Your task to perform on an android device: turn notification dots off Image 0: 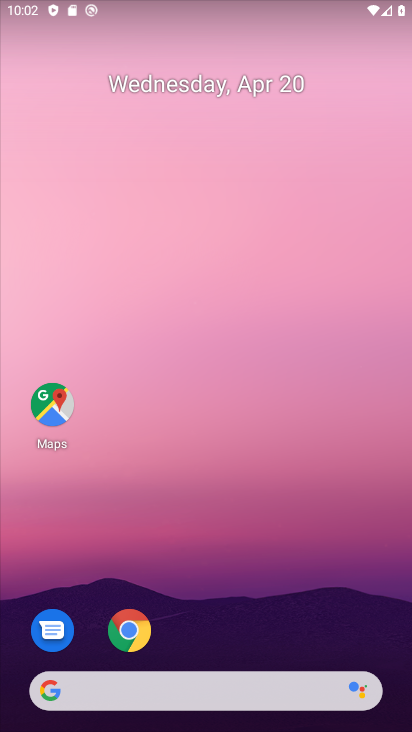
Step 0: drag from (268, 535) to (278, 11)
Your task to perform on an android device: turn notification dots off Image 1: 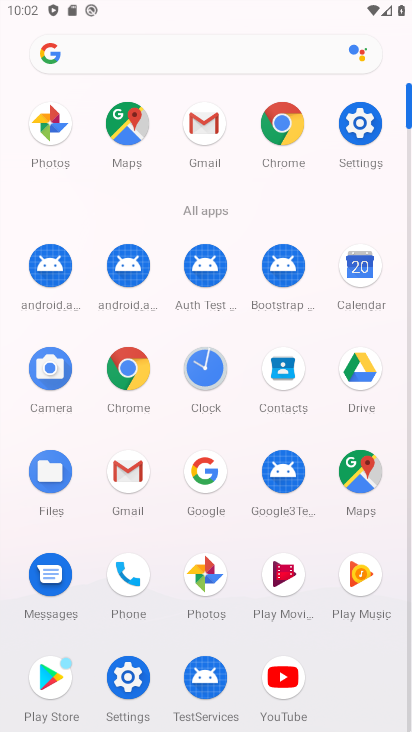
Step 1: click (363, 134)
Your task to perform on an android device: turn notification dots off Image 2: 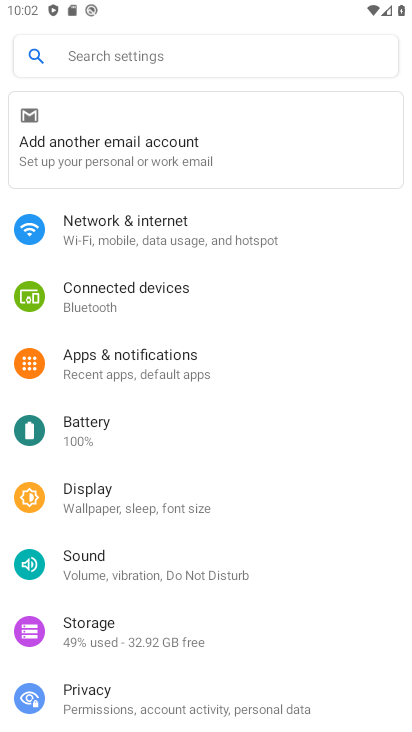
Step 2: click (152, 366)
Your task to perform on an android device: turn notification dots off Image 3: 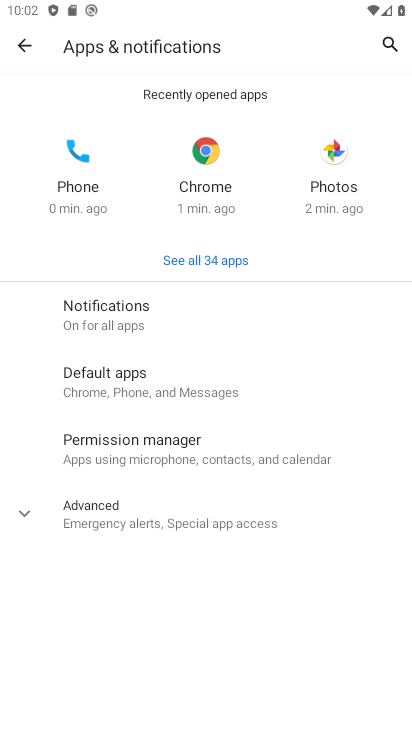
Step 3: click (104, 322)
Your task to perform on an android device: turn notification dots off Image 4: 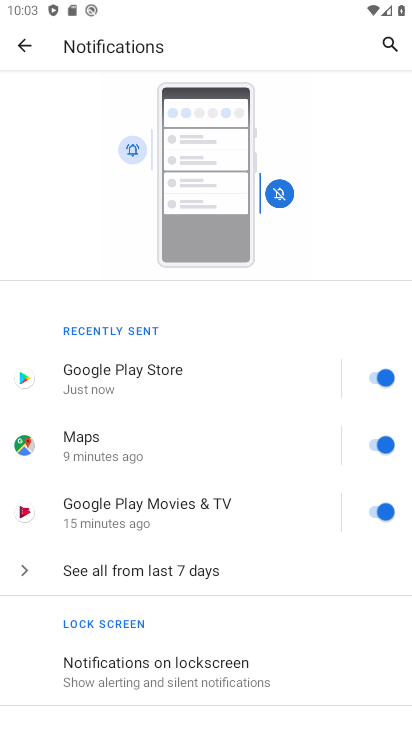
Step 4: drag from (179, 637) to (191, 254)
Your task to perform on an android device: turn notification dots off Image 5: 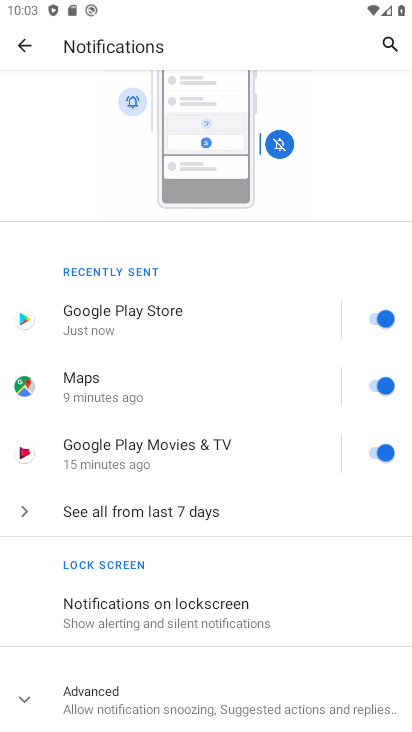
Step 5: drag from (171, 629) to (241, 267)
Your task to perform on an android device: turn notification dots off Image 6: 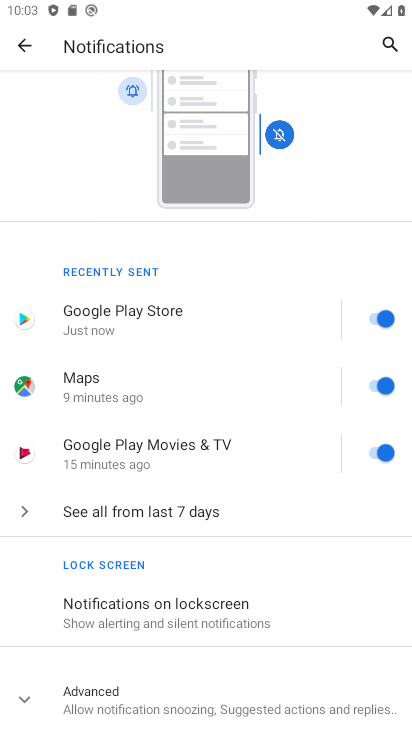
Step 6: click (107, 701)
Your task to perform on an android device: turn notification dots off Image 7: 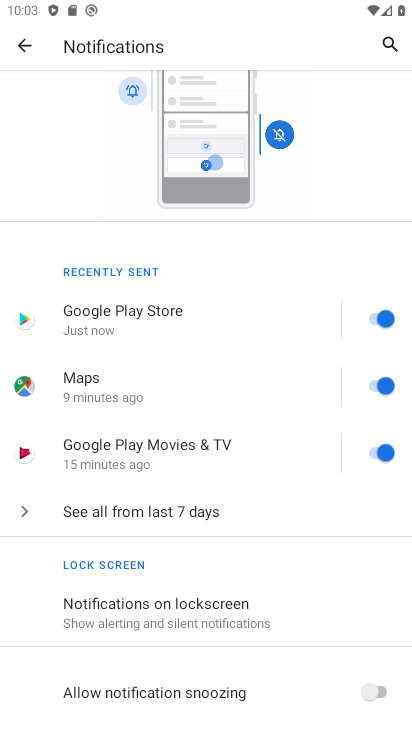
Step 7: drag from (108, 683) to (159, 332)
Your task to perform on an android device: turn notification dots off Image 8: 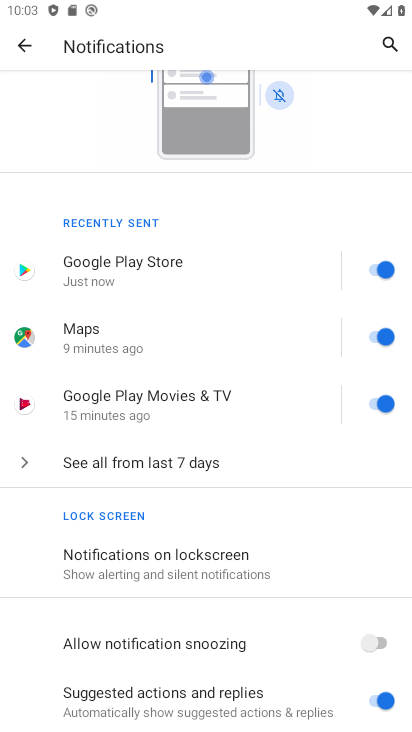
Step 8: drag from (253, 549) to (296, 127)
Your task to perform on an android device: turn notification dots off Image 9: 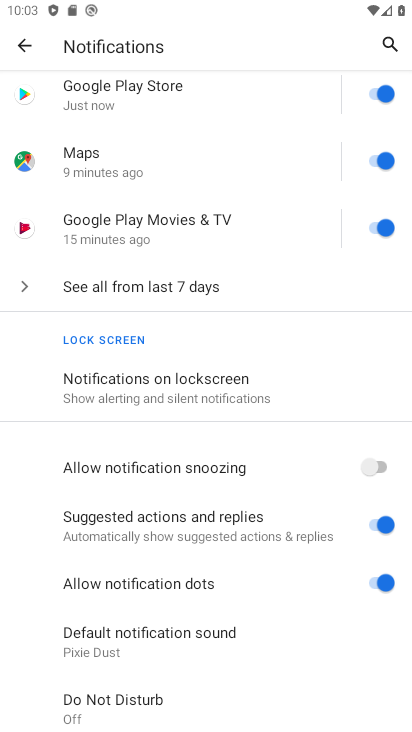
Step 9: click (383, 574)
Your task to perform on an android device: turn notification dots off Image 10: 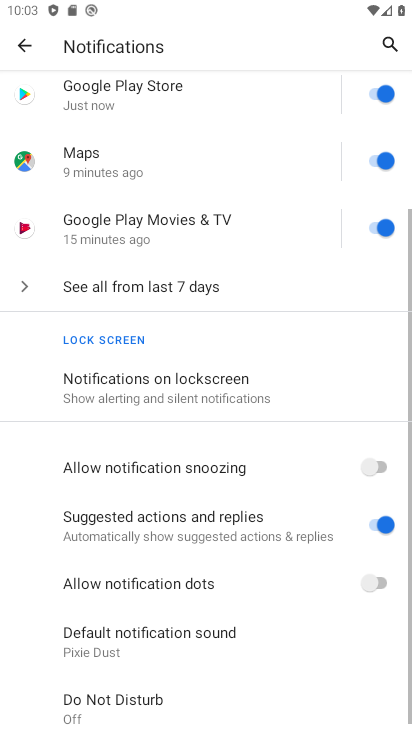
Step 10: task complete